Your task to perform on an android device: star an email in the gmail app Image 0: 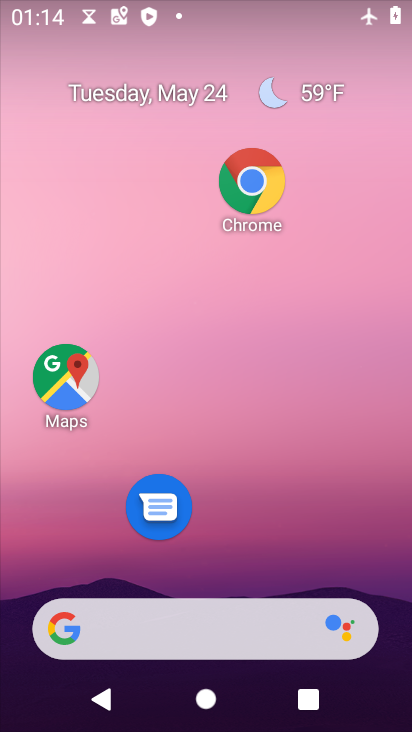
Step 0: drag from (221, 551) to (245, 290)
Your task to perform on an android device: star an email in the gmail app Image 1: 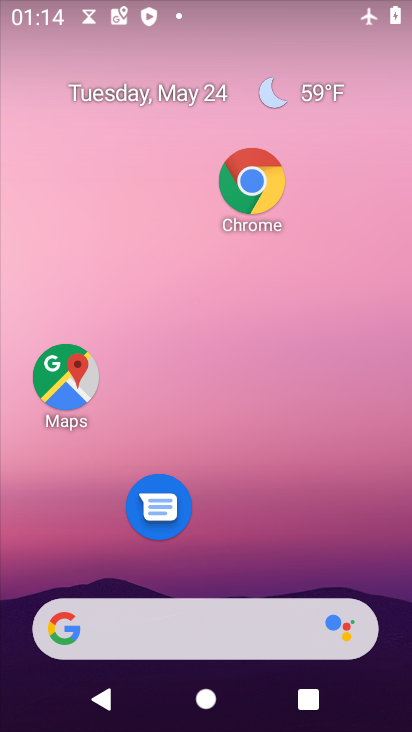
Step 1: drag from (211, 484) to (250, 267)
Your task to perform on an android device: star an email in the gmail app Image 2: 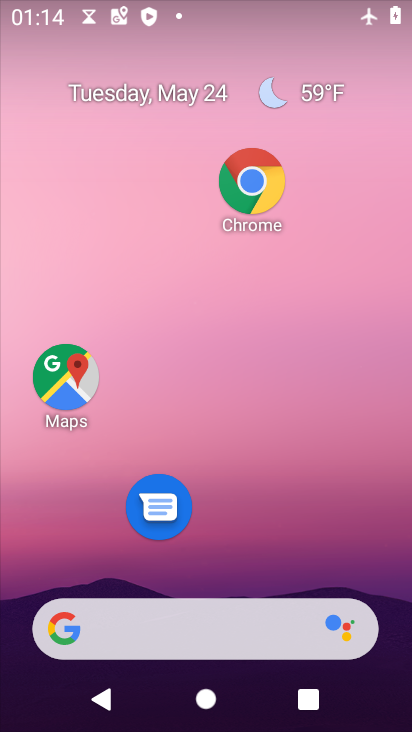
Step 2: click (272, 273)
Your task to perform on an android device: star an email in the gmail app Image 3: 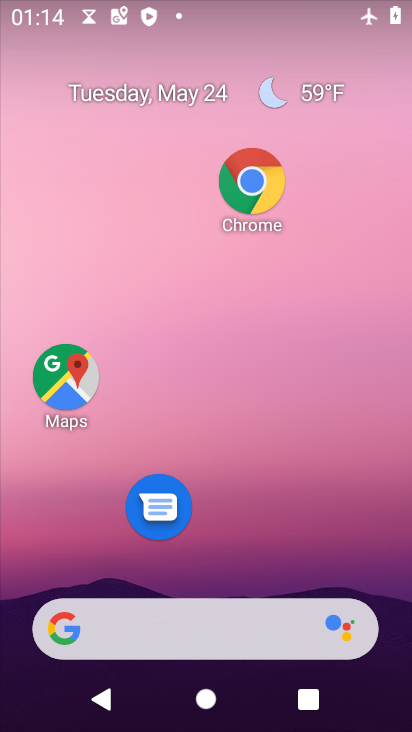
Step 3: drag from (197, 580) to (288, 190)
Your task to perform on an android device: star an email in the gmail app Image 4: 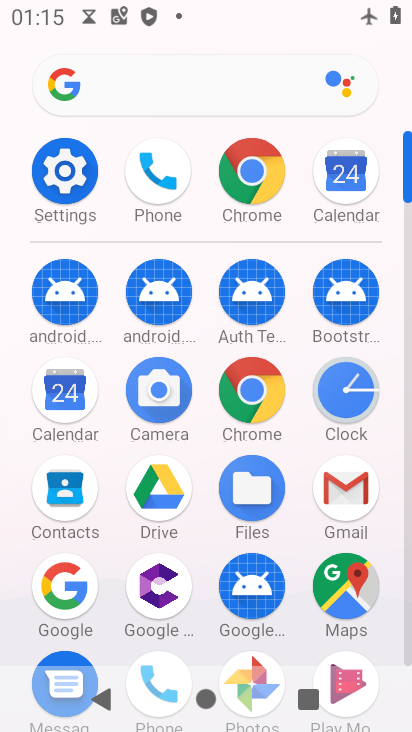
Step 4: click (330, 494)
Your task to perform on an android device: star an email in the gmail app Image 5: 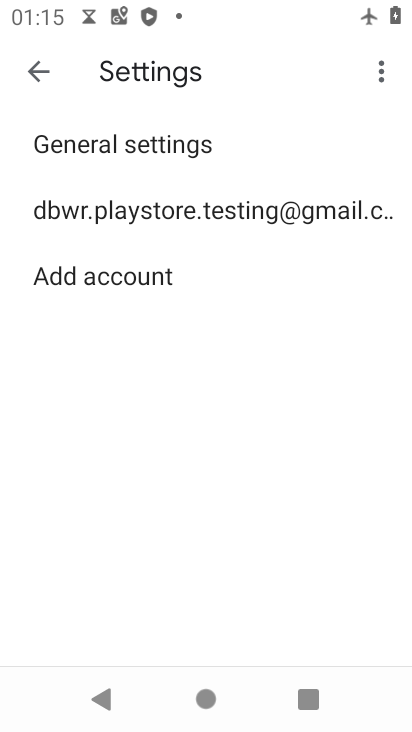
Step 5: click (37, 71)
Your task to perform on an android device: star an email in the gmail app Image 6: 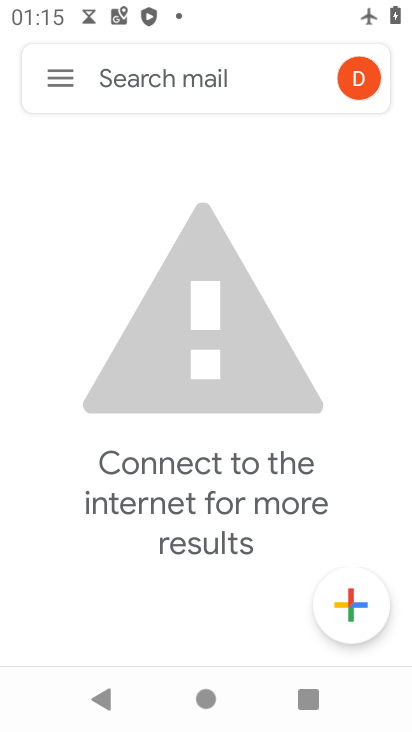
Step 6: click (71, 68)
Your task to perform on an android device: star an email in the gmail app Image 7: 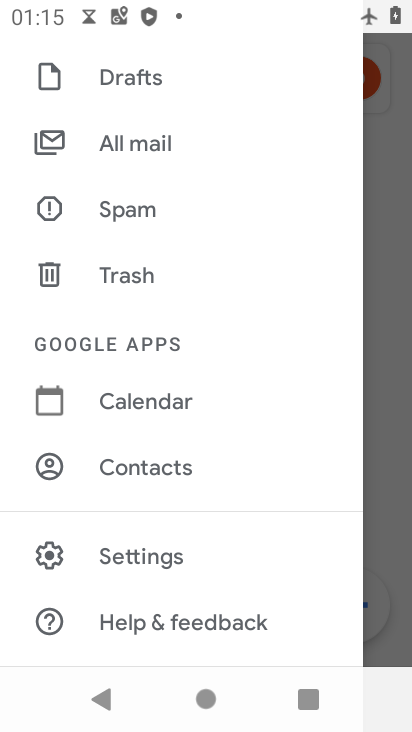
Step 7: drag from (209, 149) to (205, 688)
Your task to perform on an android device: star an email in the gmail app Image 8: 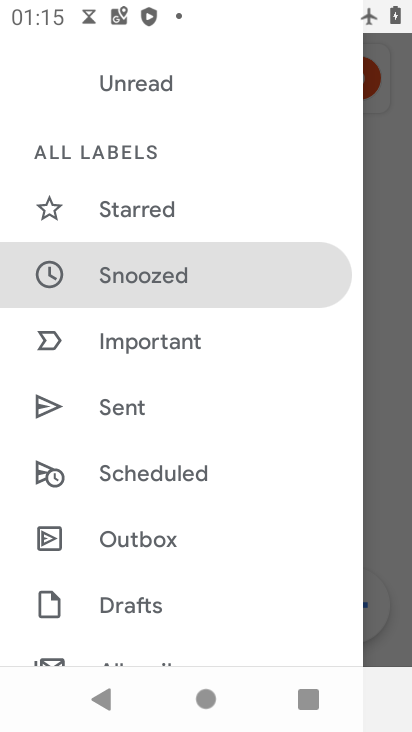
Step 8: click (183, 198)
Your task to perform on an android device: star an email in the gmail app Image 9: 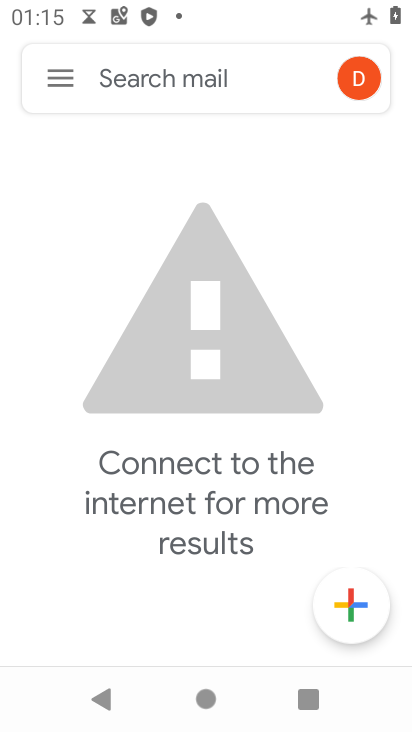
Step 9: task complete